Your task to perform on an android device: Do I have any events tomorrow? Image 0: 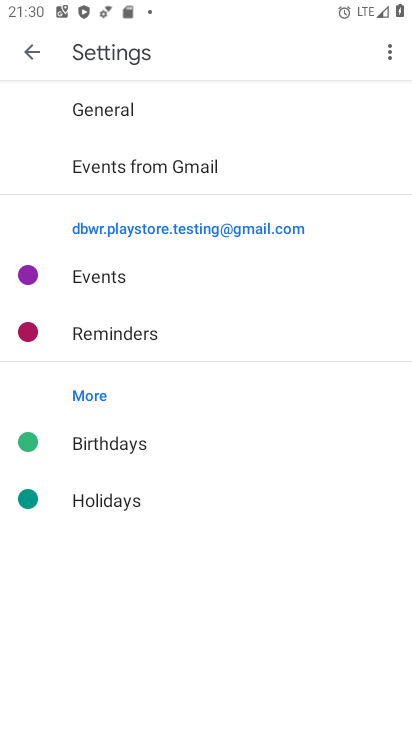
Step 0: press home button
Your task to perform on an android device: Do I have any events tomorrow? Image 1: 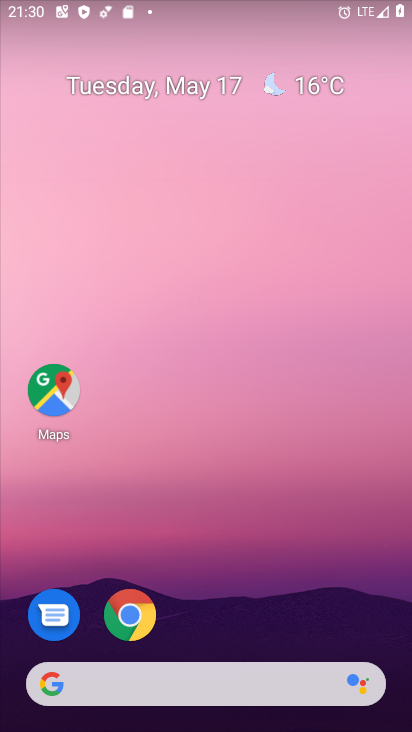
Step 1: drag from (244, 620) to (225, 139)
Your task to perform on an android device: Do I have any events tomorrow? Image 2: 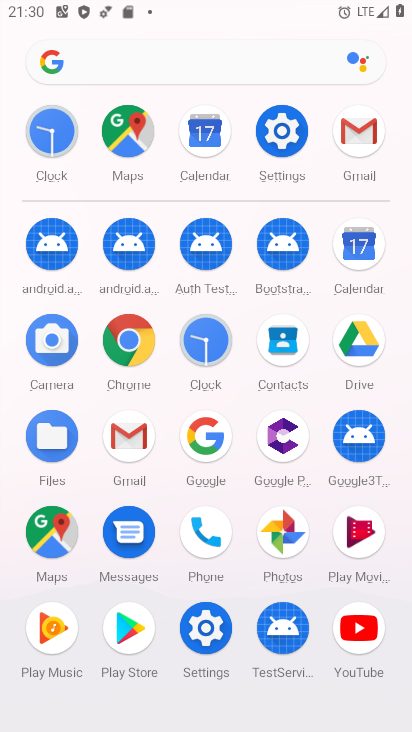
Step 2: click (213, 159)
Your task to perform on an android device: Do I have any events tomorrow? Image 3: 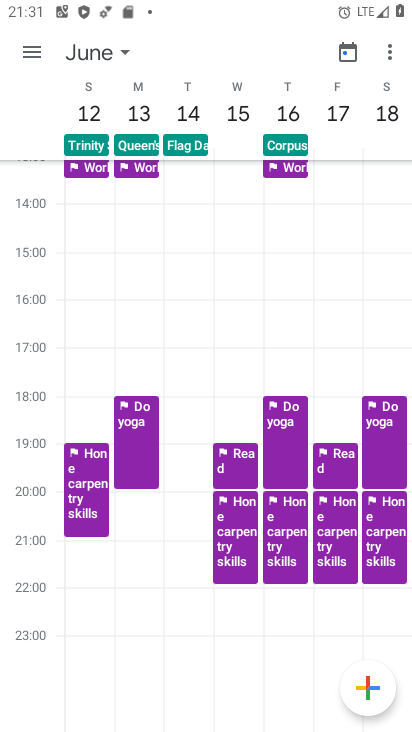
Step 3: click (73, 46)
Your task to perform on an android device: Do I have any events tomorrow? Image 4: 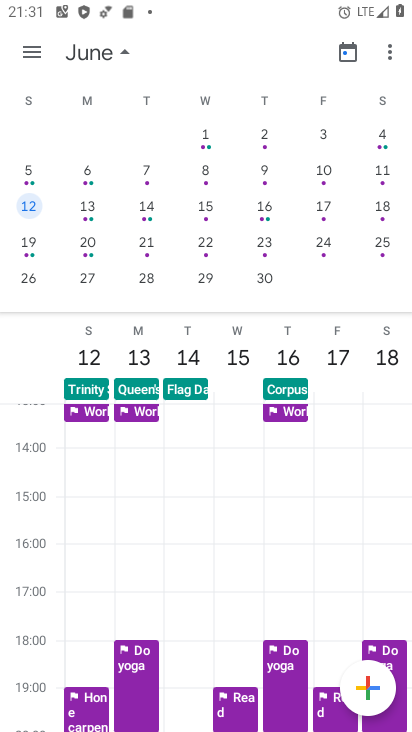
Step 4: drag from (39, 207) to (352, 226)
Your task to perform on an android device: Do I have any events tomorrow? Image 5: 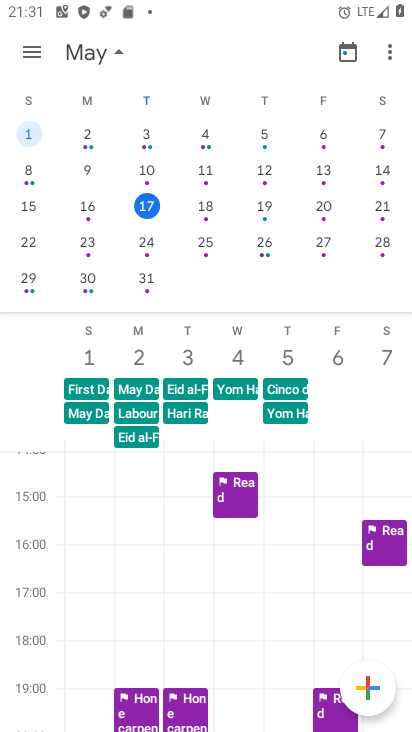
Step 5: click (203, 199)
Your task to perform on an android device: Do I have any events tomorrow? Image 6: 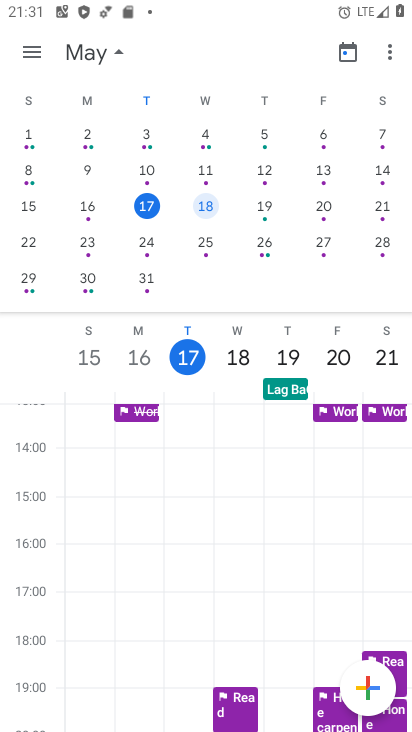
Step 6: click (38, 46)
Your task to perform on an android device: Do I have any events tomorrow? Image 7: 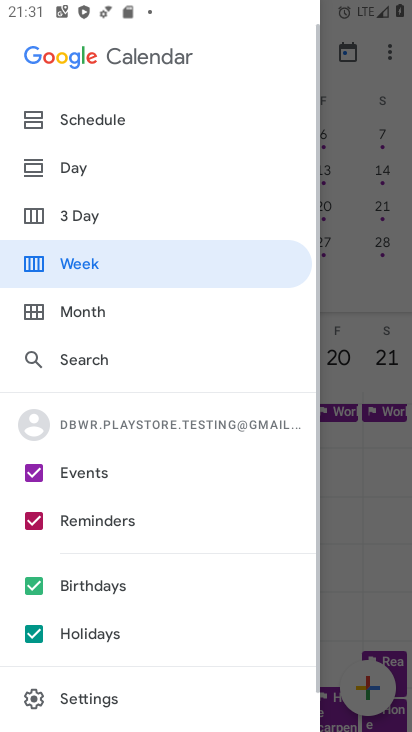
Step 7: click (46, 188)
Your task to perform on an android device: Do I have any events tomorrow? Image 8: 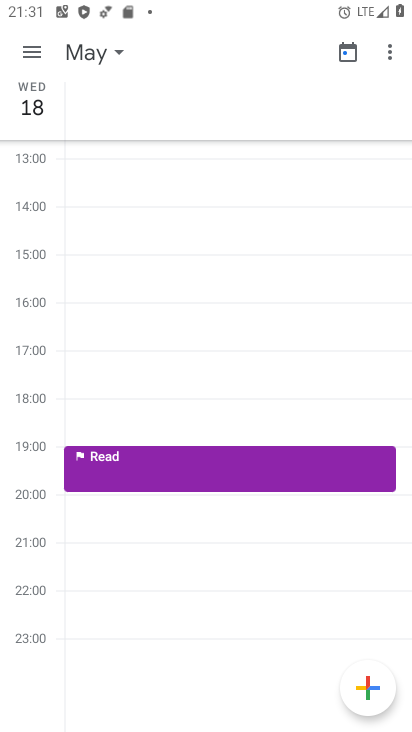
Step 8: task complete